Your task to perform on an android device: Show the shopping cart on amazon. Add "panasonic triple a" to the cart on amazon Image 0: 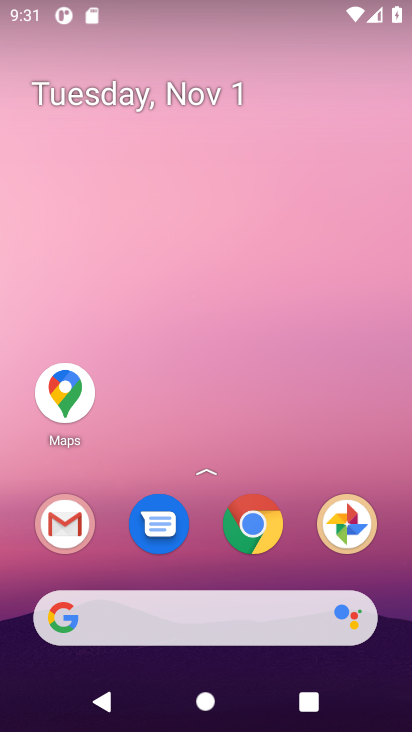
Step 0: press home button
Your task to perform on an android device: Show the shopping cart on amazon. Add "panasonic triple a" to the cart on amazon Image 1: 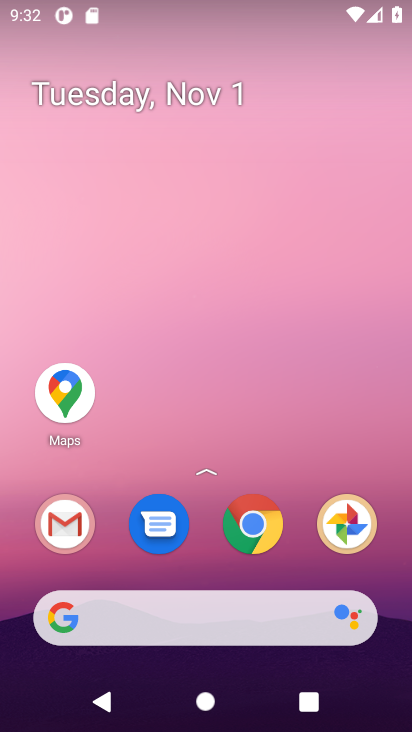
Step 1: click (92, 613)
Your task to perform on an android device: Show the shopping cart on amazon. Add "panasonic triple a" to the cart on amazon Image 2: 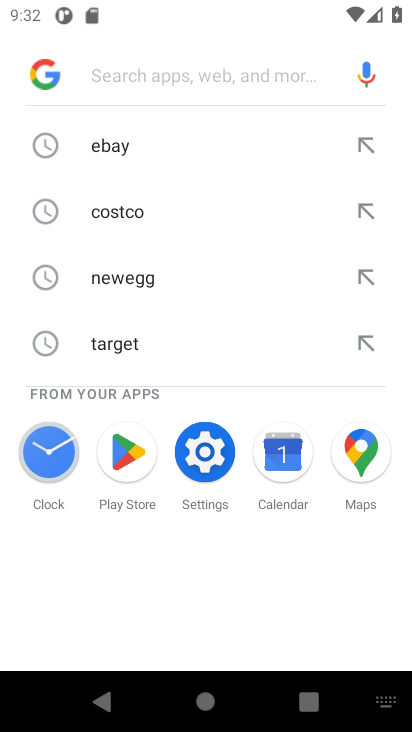
Step 2: type "amazon"
Your task to perform on an android device: Show the shopping cart on amazon. Add "panasonic triple a" to the cart on amazon Image 3: 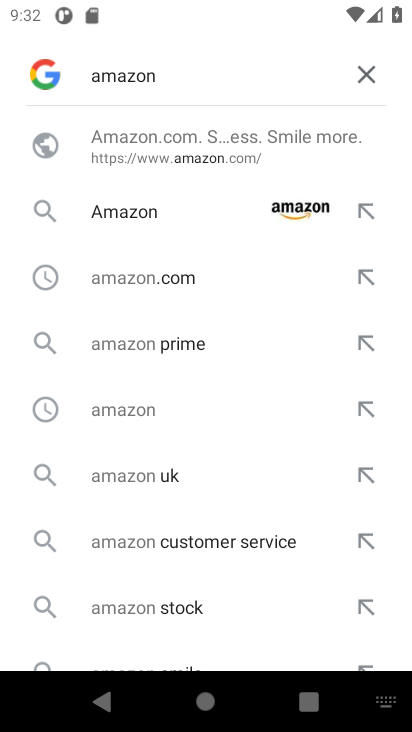
Step 3: press enter
Your task to perform on an android device: Show the shopping cart on amazon. Add "panasonic triple a" to the cart on amazon Image 4: 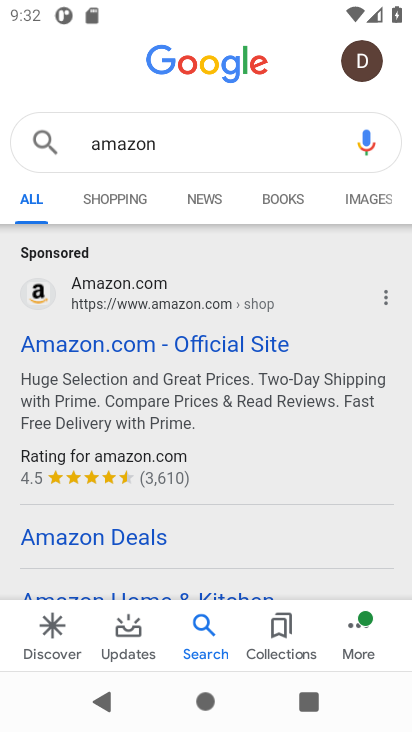
Step 4: click (120, 348)
Your task to perform on an android device: Show the shopping cart on amazon. Add "panasonic triple a" to the cart on amazon Image 5: 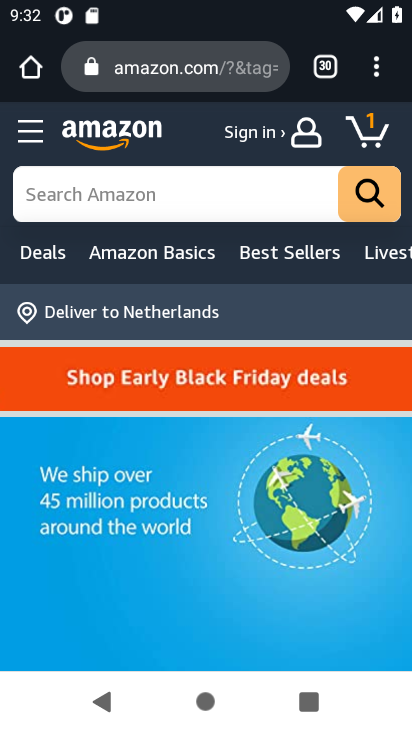
Step 5: click (371, 124)
Your task to perform on an android device: Show the shopping cart on amazon. Add "panasonic triple a" to the cart on amazon Image 6: 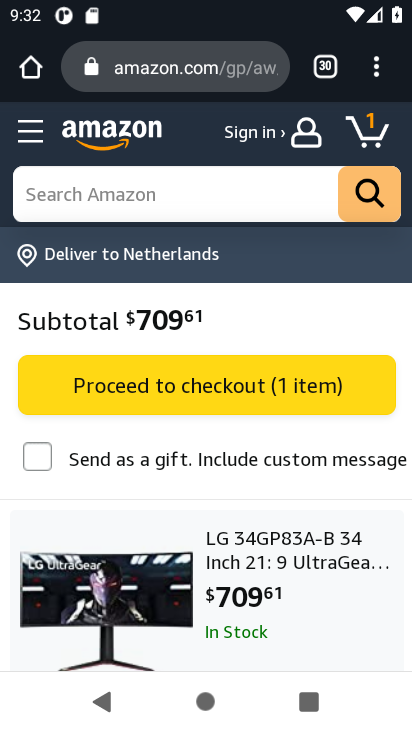
Step 6: drag from (210, 600) to (215, 407)
Your task to perform on an android device: Show the shopping cart on amazon. Add "panasonic triple a" to the cart on amazon Image 7: 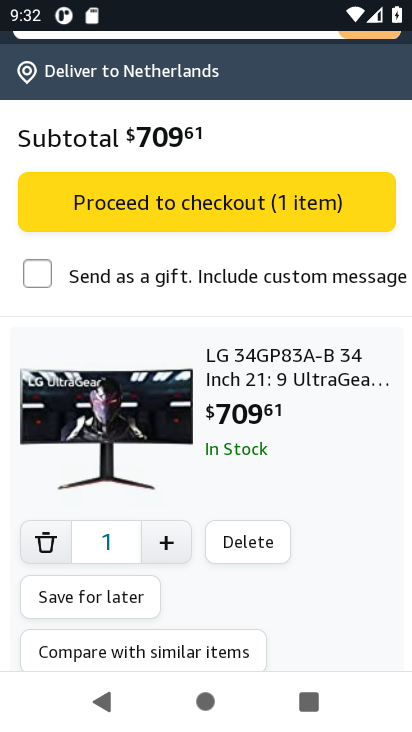
Step 7: drag from (263, 113) to (251, 455)
Your task to perform on an android device: Show the shopping cart on amazon. Add "panasonic triple a" to the cart on amazon Image 8: 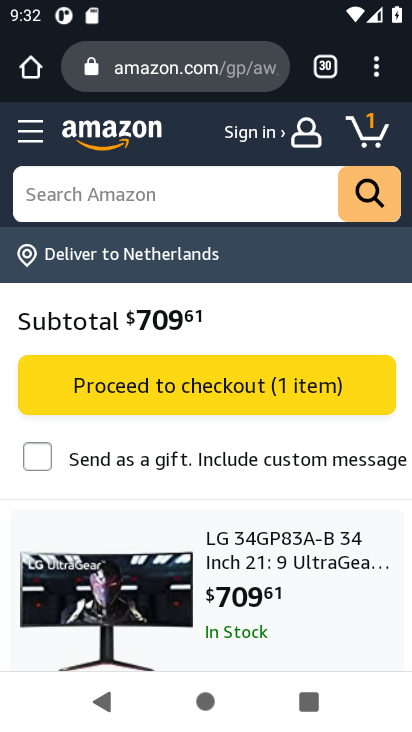
Step 8: click (47, 195)
Your task to perform on an android device: Show the shopping cart on amazon. Add "panasonic triple a" to the cart on amazon Image 9: 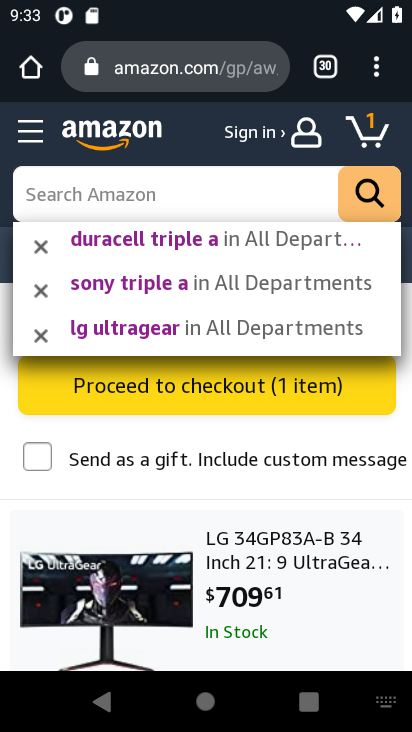
Step 9: type "panasonic triple a"
Your task to perform on an android device: Show the shopping cart on amazon. Add "panasonic triple a" to the cart on amazon Image 10: 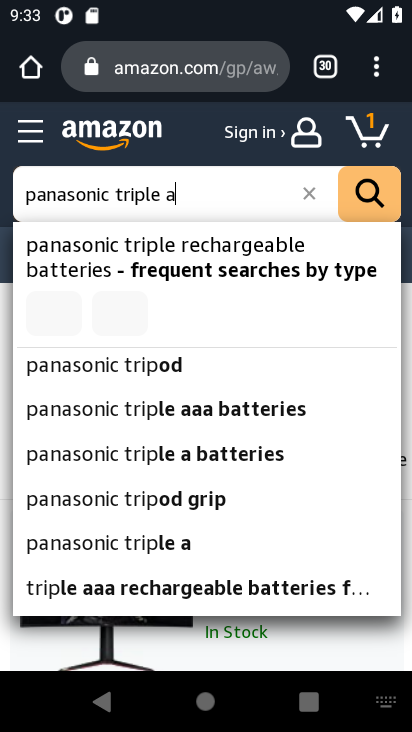
Step 10: press enter
Your task to perform on an android device: Show the shopping cart on amazon. Add "panasonic triple a" to the cart on amazon Image 11: 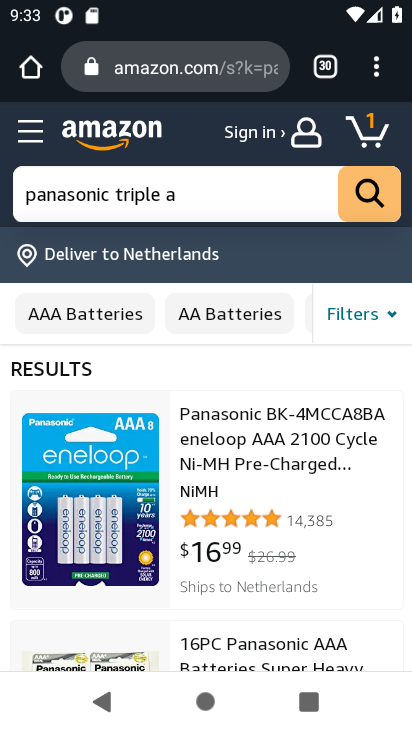
Step 11: drag from (223, 564) to (237, 430)
Your task to perform on an android device: Show the shopping cart on amazon. Add "panasonic triple a" to the cart on amazon Image 12: 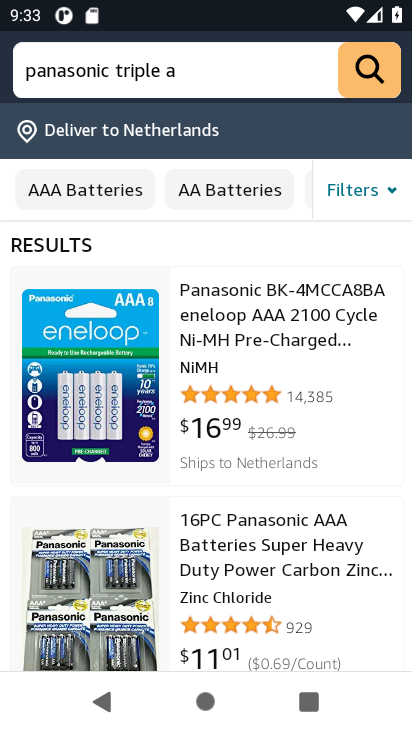
Step 12: drag from (252, 529) to (265, 382)
Your task to perform on an android device: Show the shopping cart on amazon. Add "panasonic triple a" to the cart on amazon Image 13: 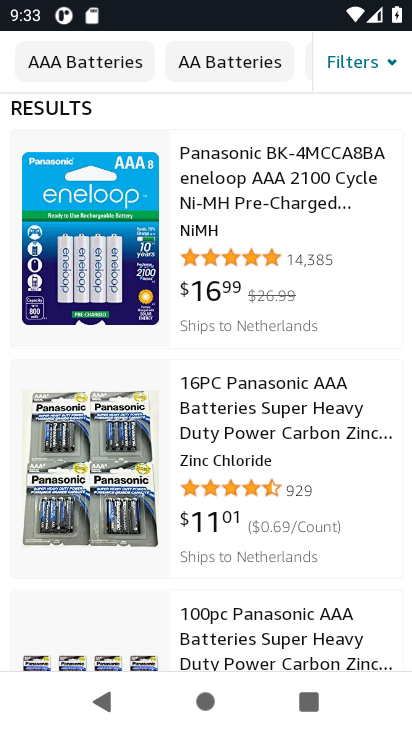
Step 13: drag from (267, 555) to (269, 442)
Your task to perform on an android device: Show the shopping cart on amazon. Add "panasonic triple a" to the cart on amazon Image 14: 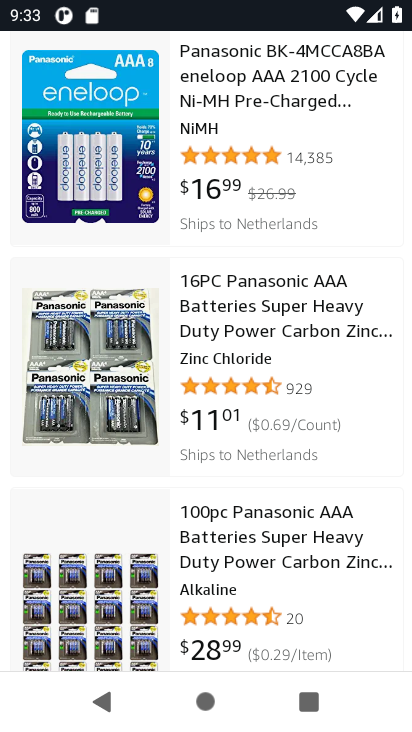
Step 14: drag from (338, 241) to (312, 496)
Your task to perform on an android device: Show the shopping cart on amazon. Add "panasonic triple a" to the cart on amazon Image 15: 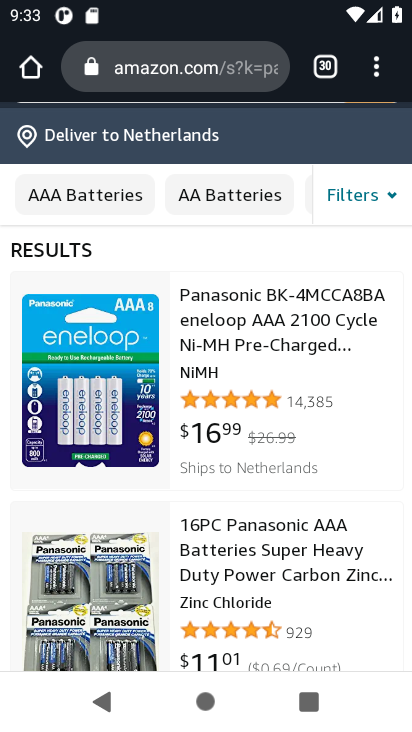
Step 15: click (236, 326)
Your task to perform on an android device: Show the shopping cart on amazon. Add "panasonic triple a" to the cart on amazon Image 16: 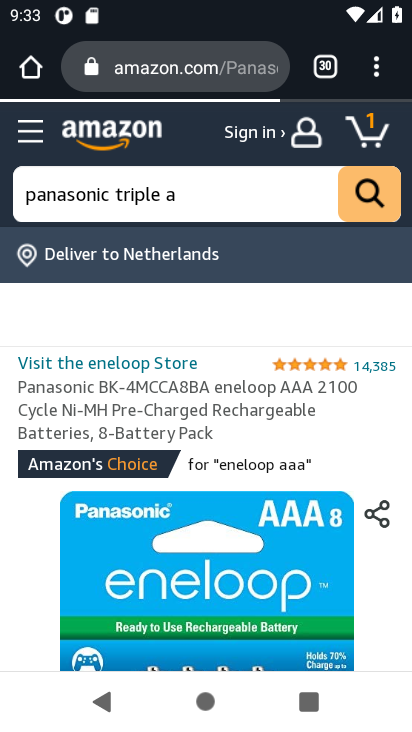
Step 16: drag from (203, 594) to (209, 309)
Your task to perform on an android device: Show the shopping cart on amazon. Add "panasonic triple a" to the cart on amazon Image 17: 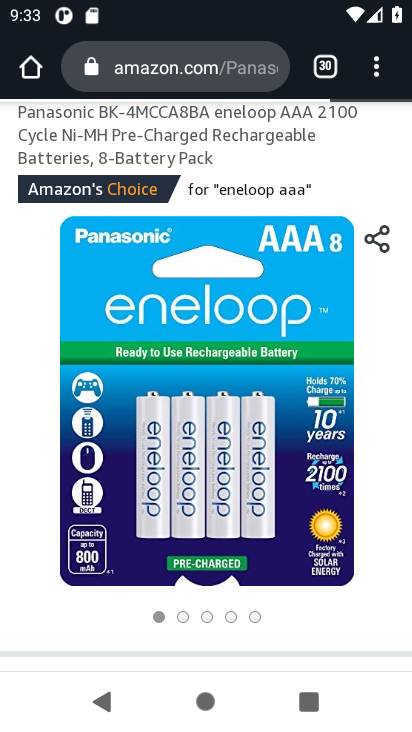
Step 17: drag from (234, 568) to (241, 389)
Your task to perform on an android device: Show the shopping cart on amazon. Add "panasonic triple a" to the cart on amazon Image 18: 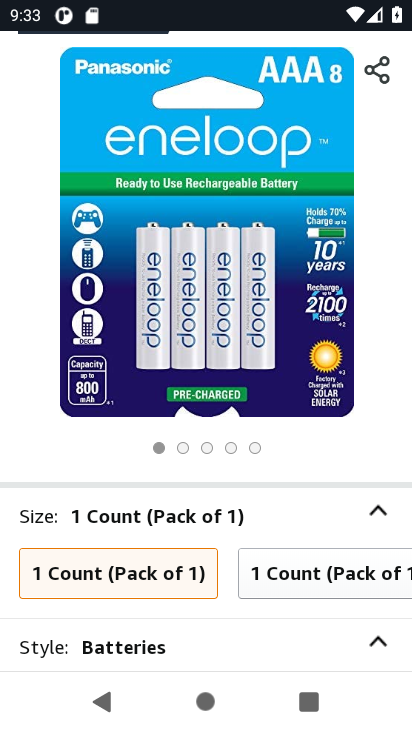
Step 18: drag from (253, 626) to (254, 313)
Your task to perform on an android device: Show the shopping cart on amazon. Add "panasonic triple a" to the cart on amazon Image 19: 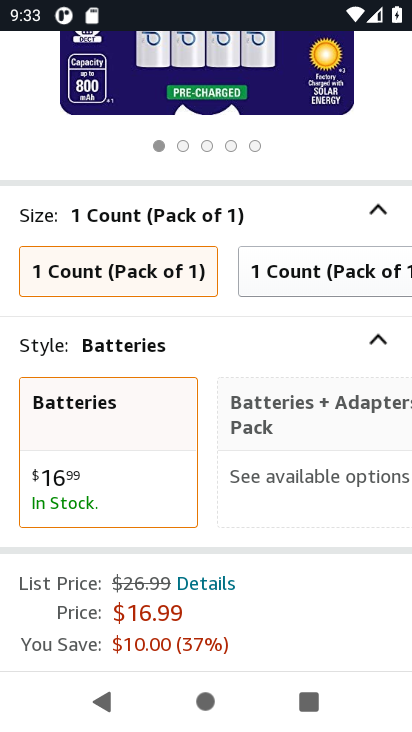
Step 19: drag from (282, 547) to (299, 262)
Your task to perform on an android device: Show the shopping cart on amazon. Add "panasonic triple a" to the cart on amazon Image 20: 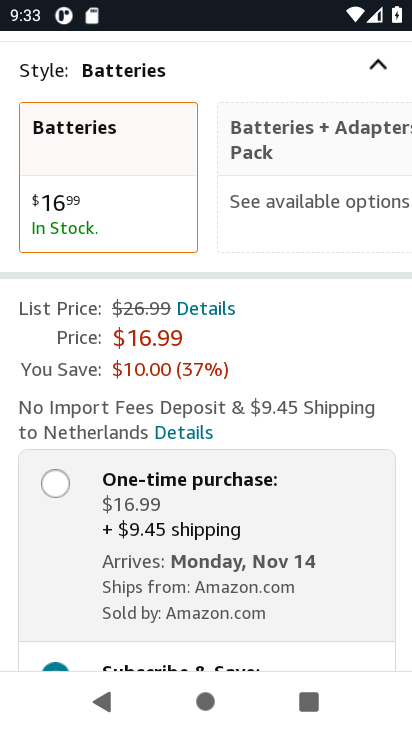
Step 20: drag from (253, 507) to (245, 232)
Your task to perform on an android device: Show the shopping cart on amazon. Add "panasonic triple a" to the cart on amazon Image 21: 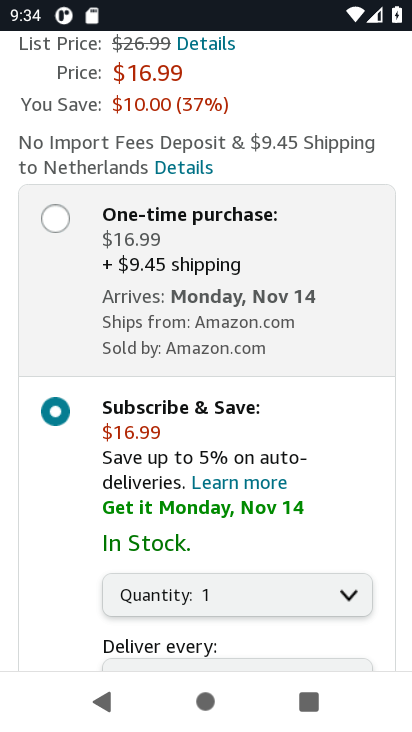
Step 21: drag from (229, 577) to (226, 234)
Your task to perform on an android device: Show the shopping cart on amazon. Add "panasonic triple a" to the cart on amazon Image 22: 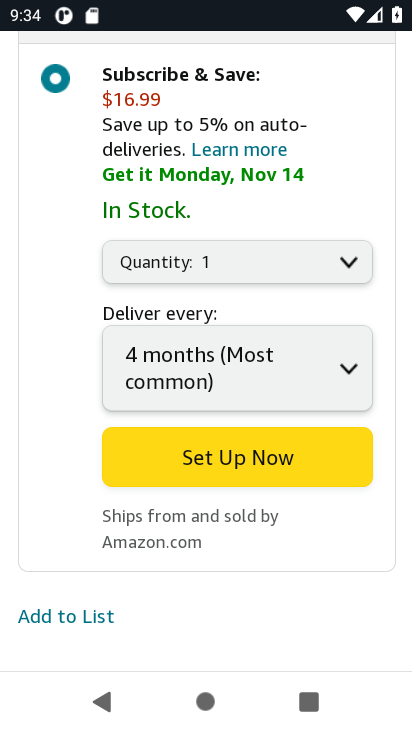
Step 22: click (231, 462)
Your task to perform on an android device: Show the shopping cart on amazon. Add "panasonic triple a" to the cart on amazon Image 23: 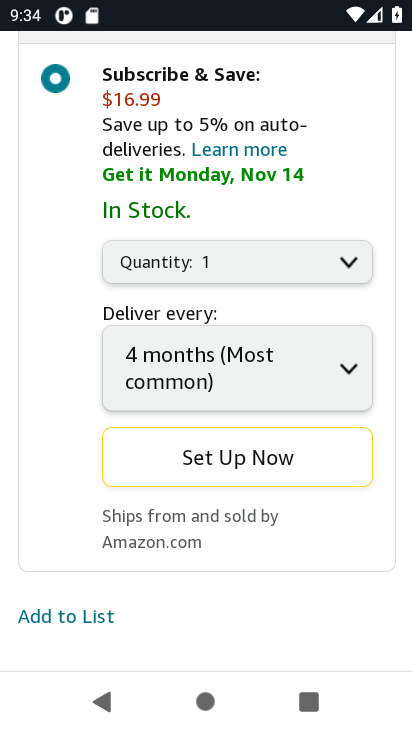
Step 23: task complete